Your task to perform on an android device: Go to Google maps Image 0: 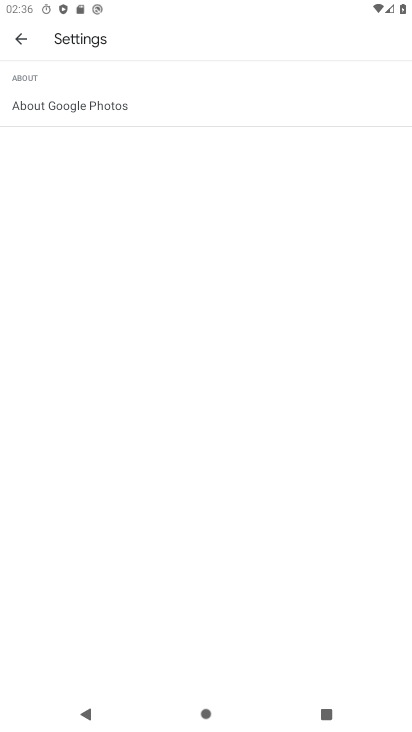
Step 0: press home button
Your task to perform on an android device: Go to Google maps Image 1: 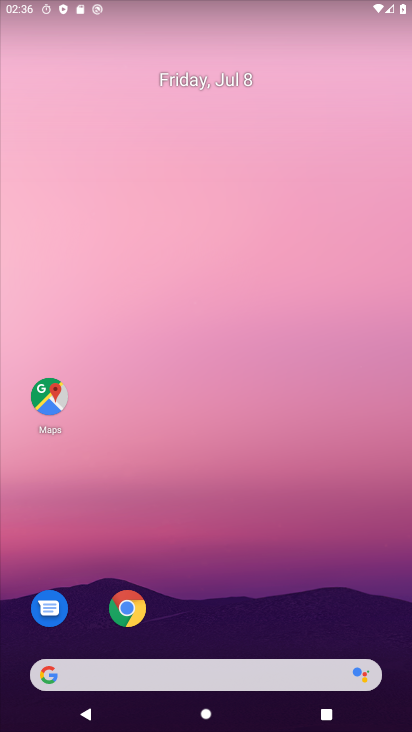
Step 1: click (46, 401)
Your task to perform on an android device: Go to Google maps Image 2: 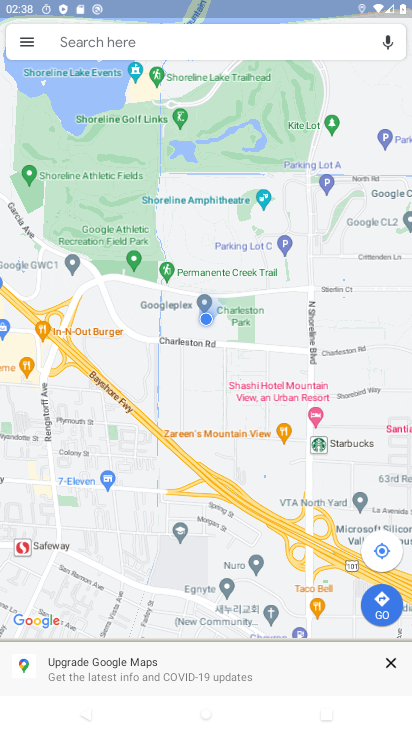
Step 2: task complete